Your task to perform on an android device: Open the calendar app, open the side menu, and click the "Day" option Image 0: 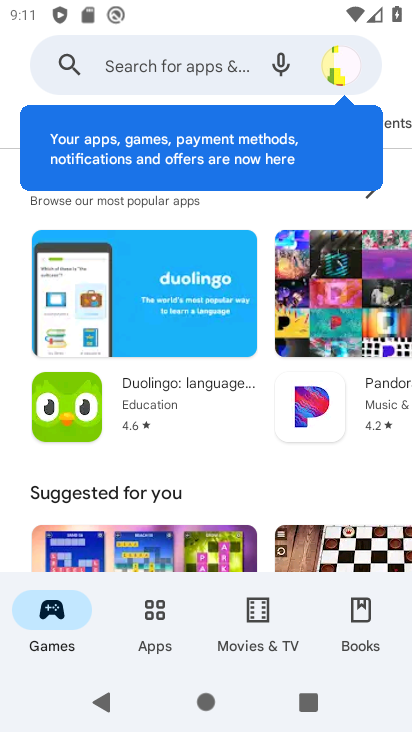
Step 0: press home button
Your task to perform on an android device: Open the calendar app, open the side menu, and click the "Day" option Image 1: 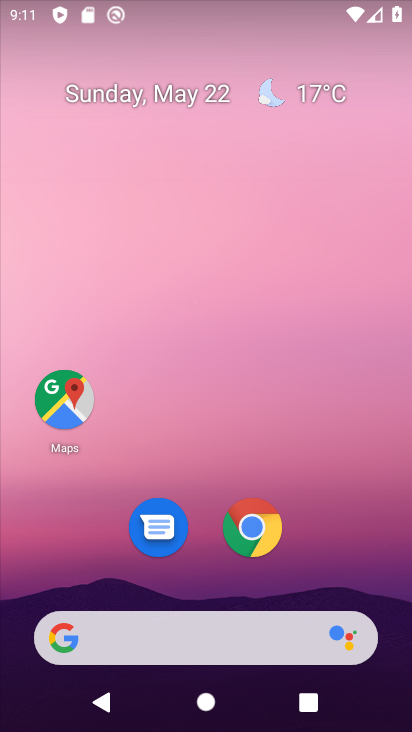
Step 1: drag from (341, 547) to (257, 24)
Your task to perform on an android device: Open the calendar app, open the side menu, and click the "Day" option Image 2: 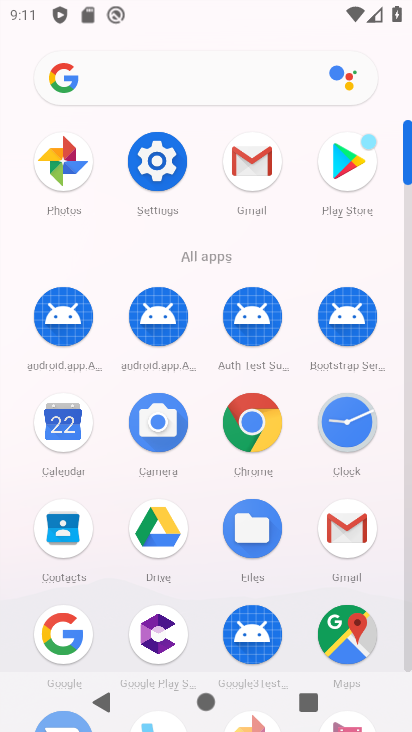
Step 2: click (58, 419)
Your task to perform on an android device: Open the calendar app, open the side menu, and click the "Day" option Image 3: 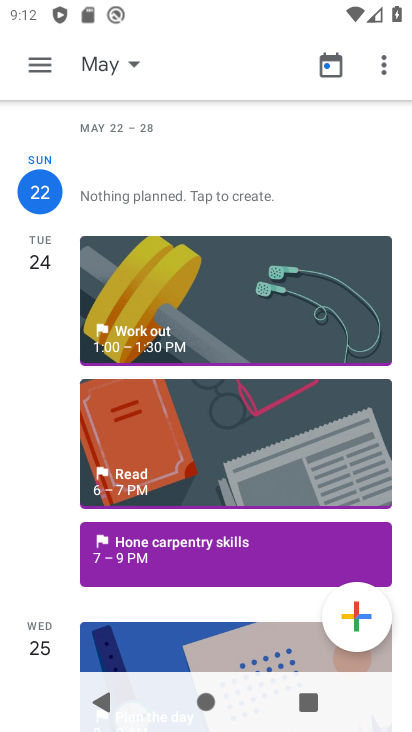
Step 3: click (37, 61)
Your task to perform on an android device: Open the calendar app, open the side menu, and click the "Day" option Image 4: 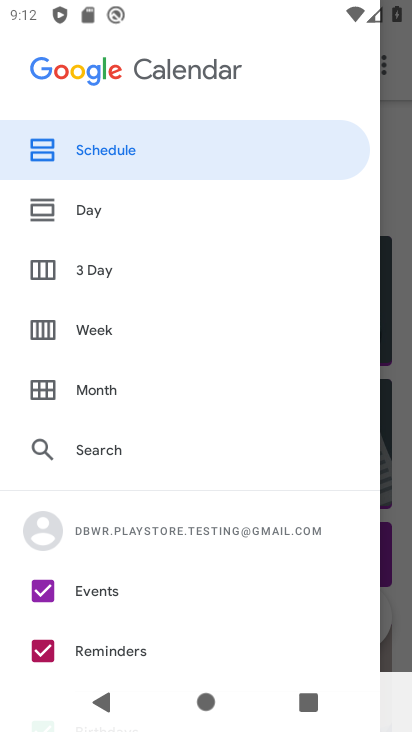
Step 4: click (83, 215)
Your task to perform on an android device: Open the calendar app, open the side menu, and click the "Day" option Image 5: 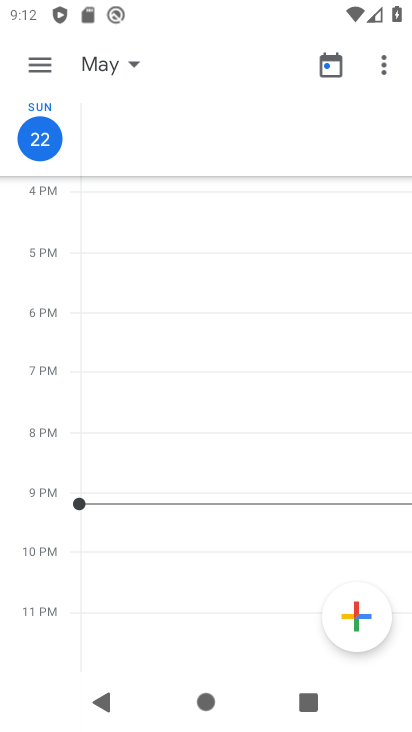
Step 5: task complete